Your task to perform on an android device: What's on my calendar today? Image 0: 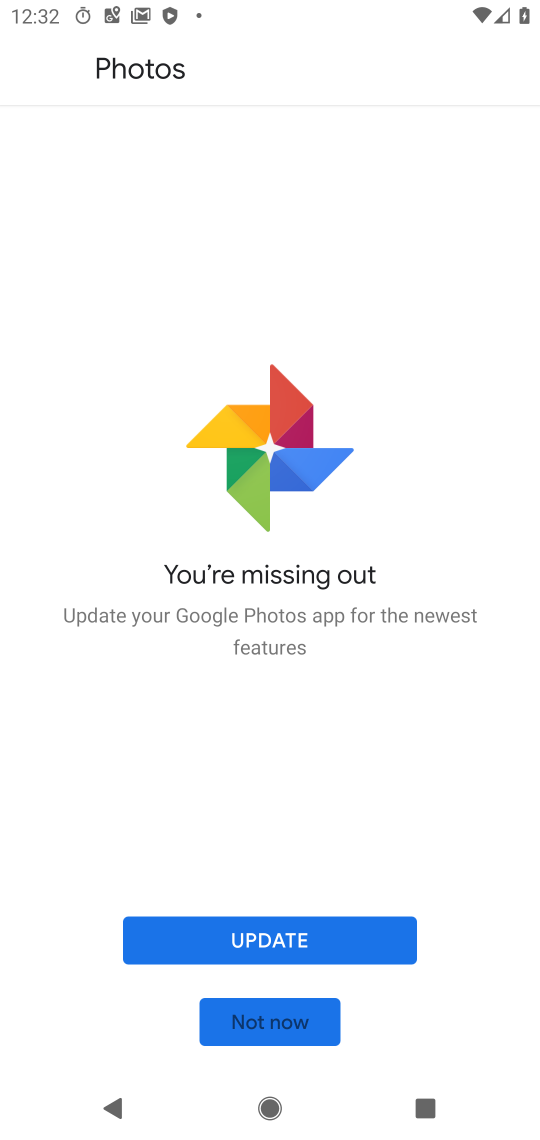
Step 0: press home button
Your task to perform on an android device: What's on my calendar today? Image 1: 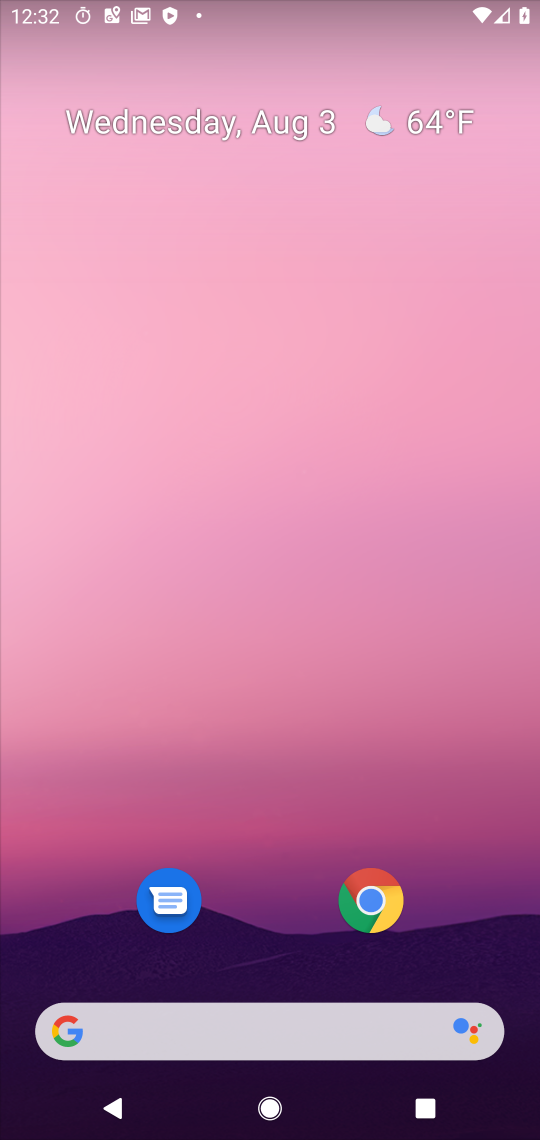
Step 1: drag from (273, 791) to (330, 221)
Your task to perform on an android device: What's on my calendar today? Image 2: 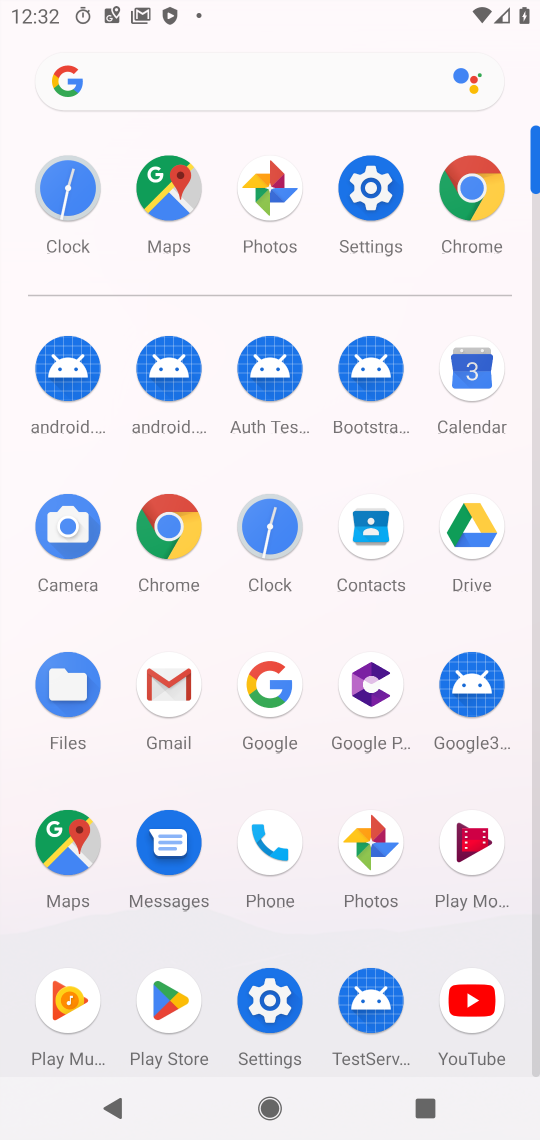
Step 2: click (456, 359)
Your task to perform on an android device: What's on my calendar today? Image 3: 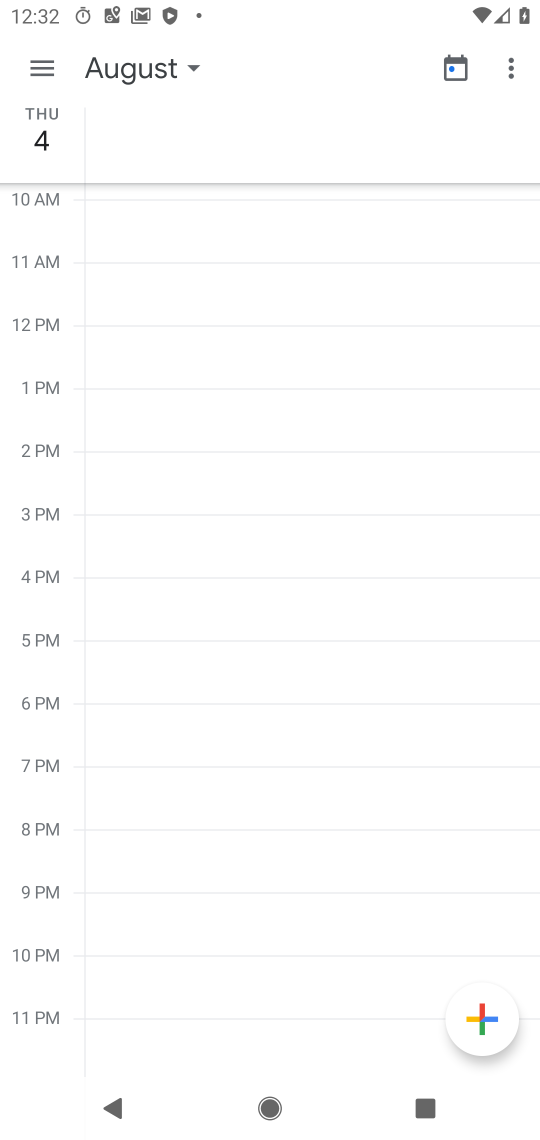
Step 3: task complete